Your task to perform on an android device: change notification settings in the gmail app Image 0: 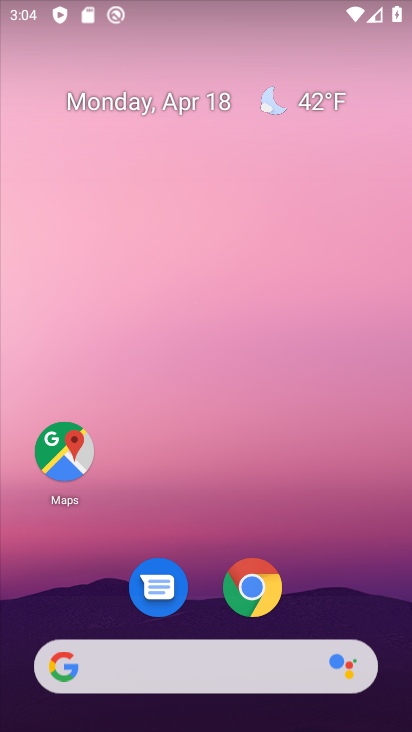
Step 0: drag from (200, 572) to (260, 47)
Your task to perform on an android device: change notification settings in the gmail app Image 1: 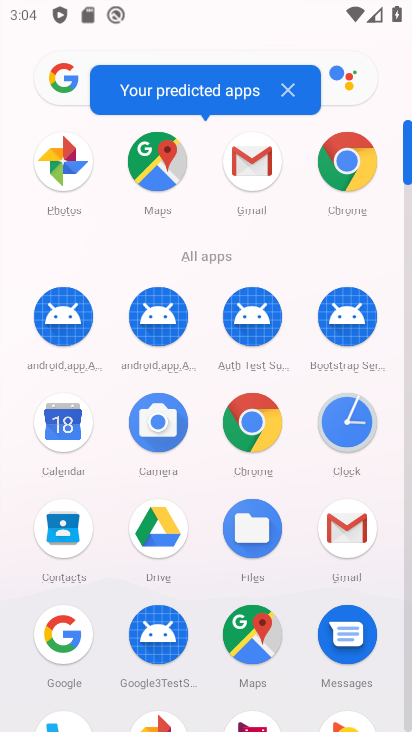
Step 1: click (353, 532)
Your task to perform on an android device: change notification settings in the gmail app Image 2: 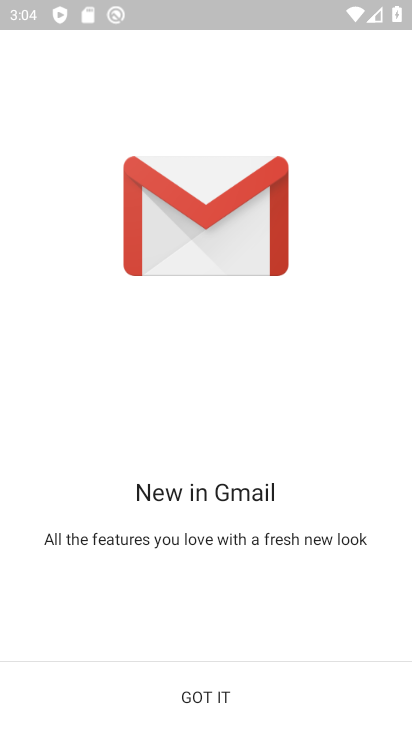
Step 2: click (227, 698)
Your task to perform on an android device: change notification settings in the gmail app Image 3: 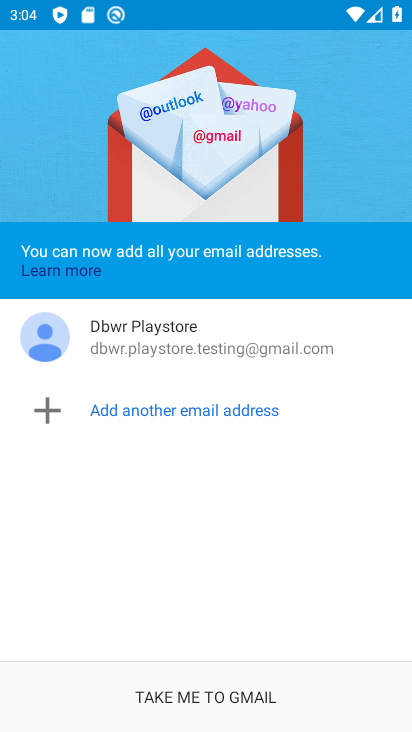
Step 3: click (227, 698)
Your task to perform on an android device: change notification settings in the gmail app Image 4: 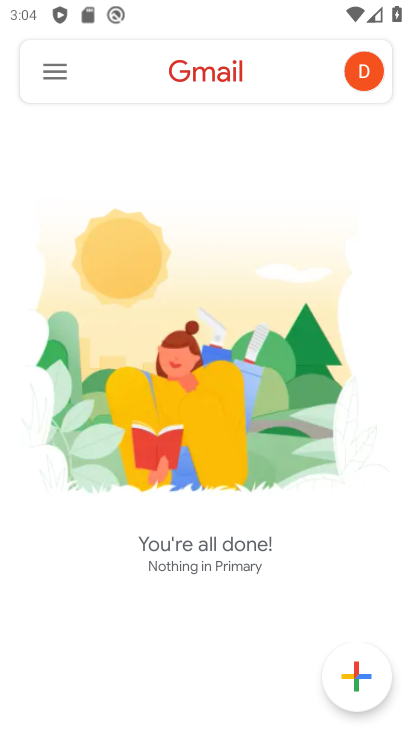
Step 4: click (53, 71)
Your task to perform on an android device: change notification settings in the gmail app Image 5: 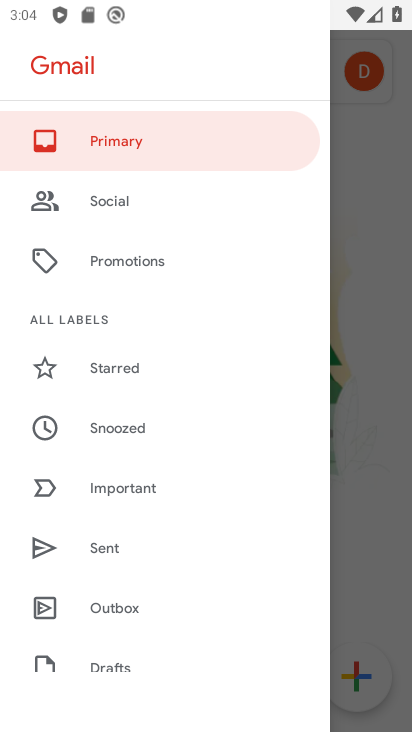
Step 5: drag from (129, 622) to (181, 75)
Your task to perform on an android device: change notification settings in the gmail app Image 6: 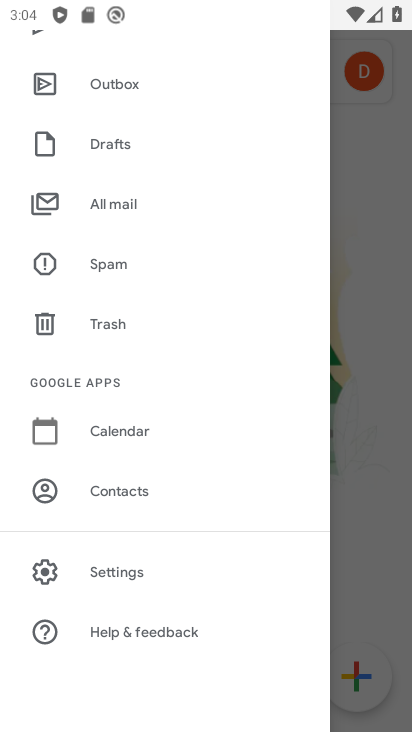
Step 6: click (103, 574)
Your task to perform on an android device: change notification settings in the gmail app Image 7: 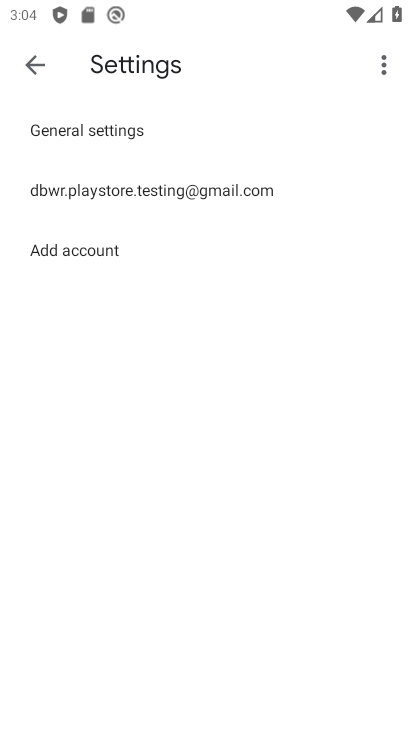
Step 7: click (79, 133)
Your task to perform on an android device: change notification settings in the gmail app Image 8: 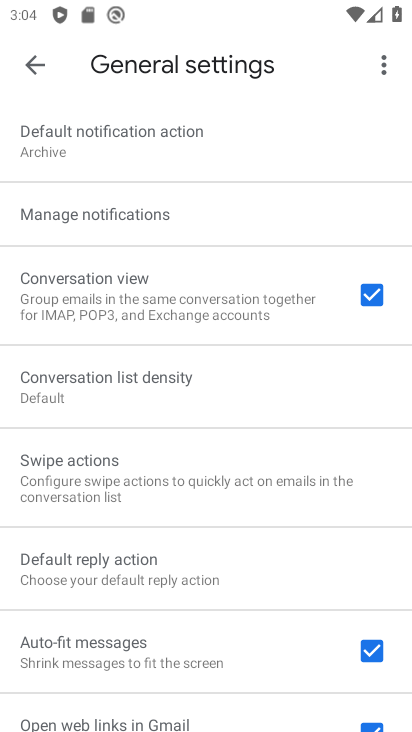
Step 8: click (96, 219)
Your task to perform on an android device: change notification settings in the gmail app Image 9: 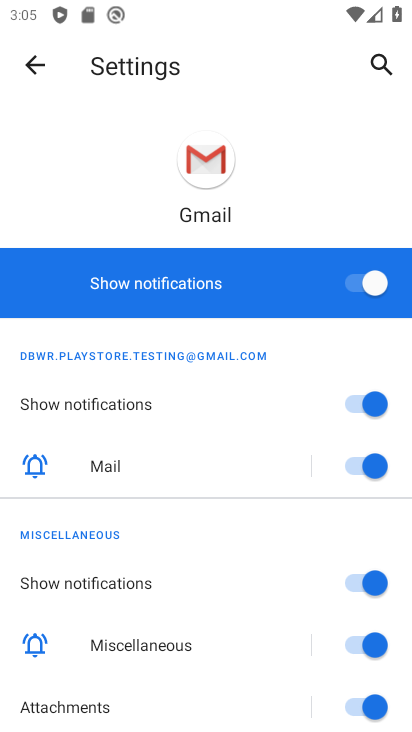
Step 9: click (361, 276)
Your task to perform on an android device: change notification settings in the gmail app Image 10: 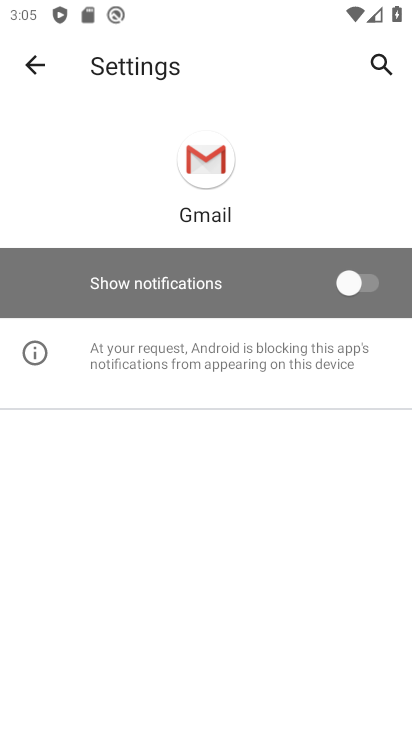
Step 10: task complete